Your task to perform on an android device: turn on the 24-hour format for clock Image 0: 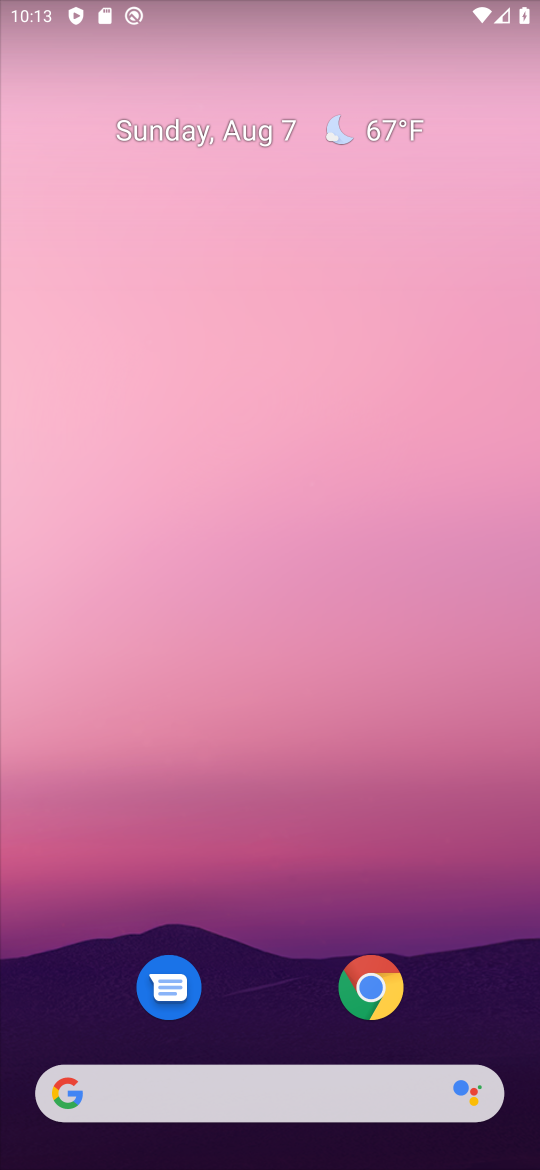
Step 0: drag from (342, 895) to (345, 64)
Your task to perform on an android device: turn on the 24-hour format for clock Image 1: 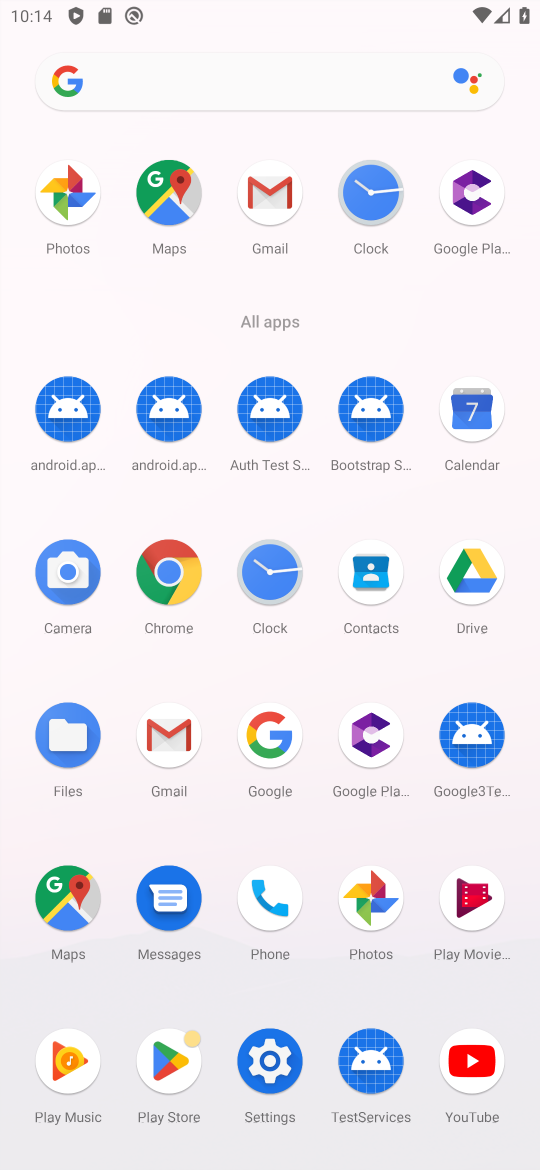
Step 1: click (395, 180)
Your task to perform on an android device: turn on the 24-hour format for clock Image 2: 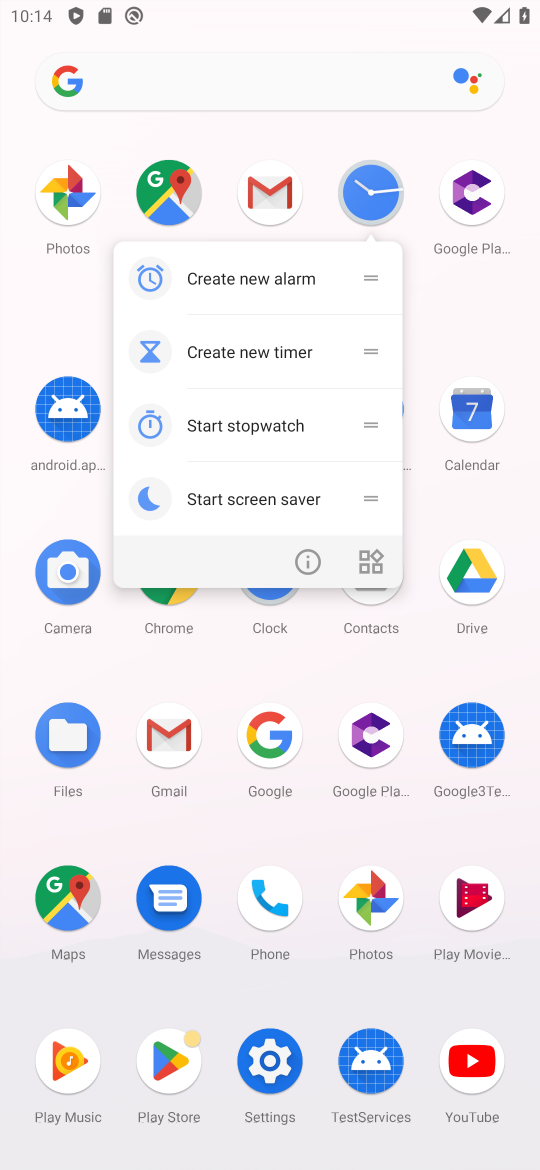
Step 2: click (377, 198)
Your task to perform on an android device: turn on the 24-hour format for clock Image 3: 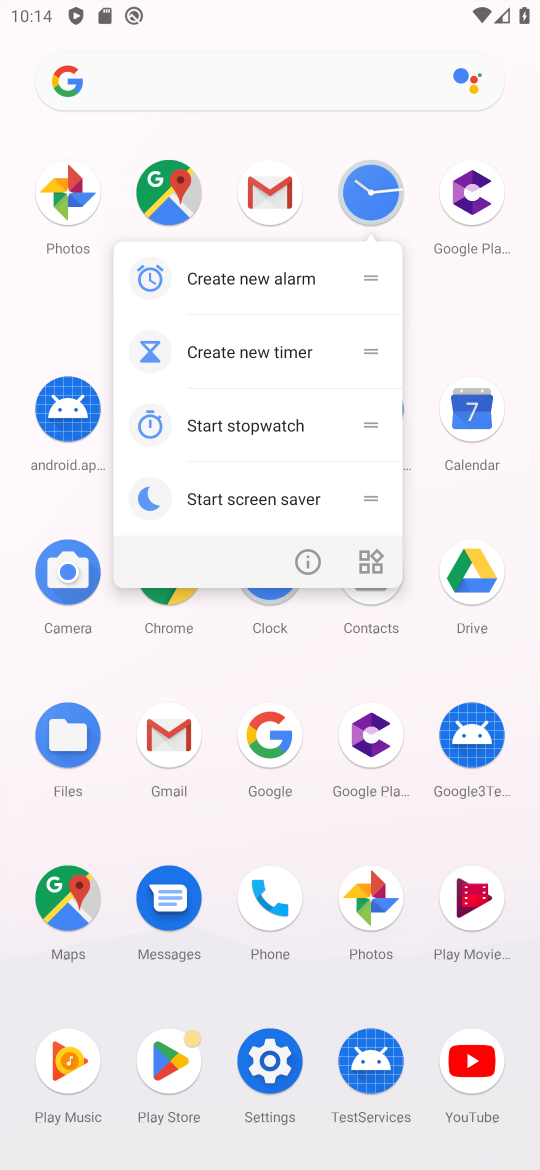
Step 3: click (377, 196)
Your task to perform on an android device: turn on the 24-hour format for clock Image 4: 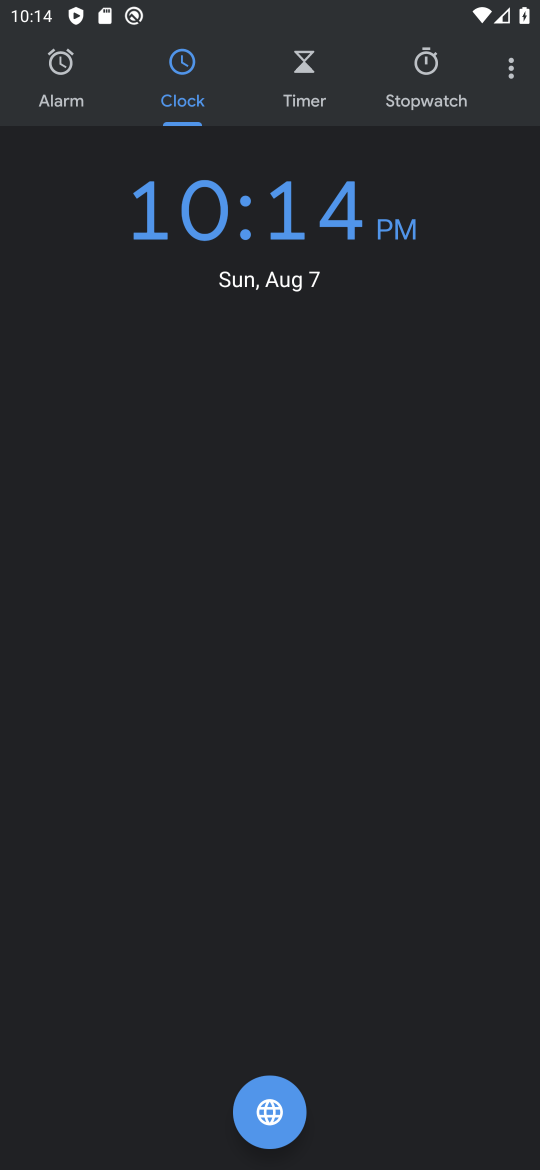
Step 4: click (503, 82)
Your task to perform on an android device: turn on the 24-hour format for clock Image 5: 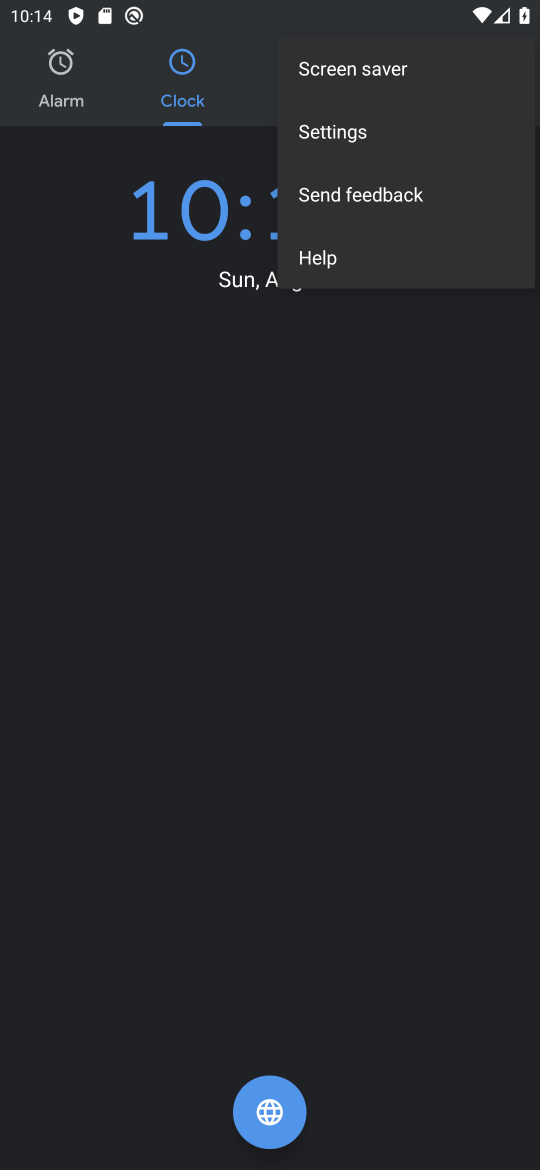
Step 5: click (360, 139)
Your task to perform on an android device: turn on the 24-hour format for clock Image 6: 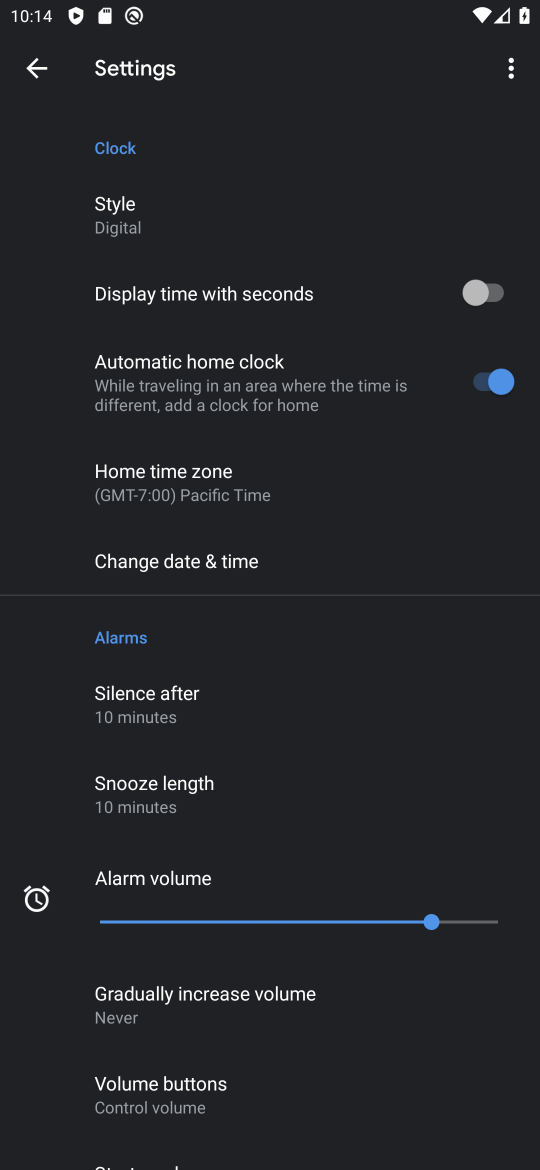
Step 6: drag from (220, 999) to (249, 305)
Your task to perform on an android device: turn on the 24-hour format for clock Image 7: 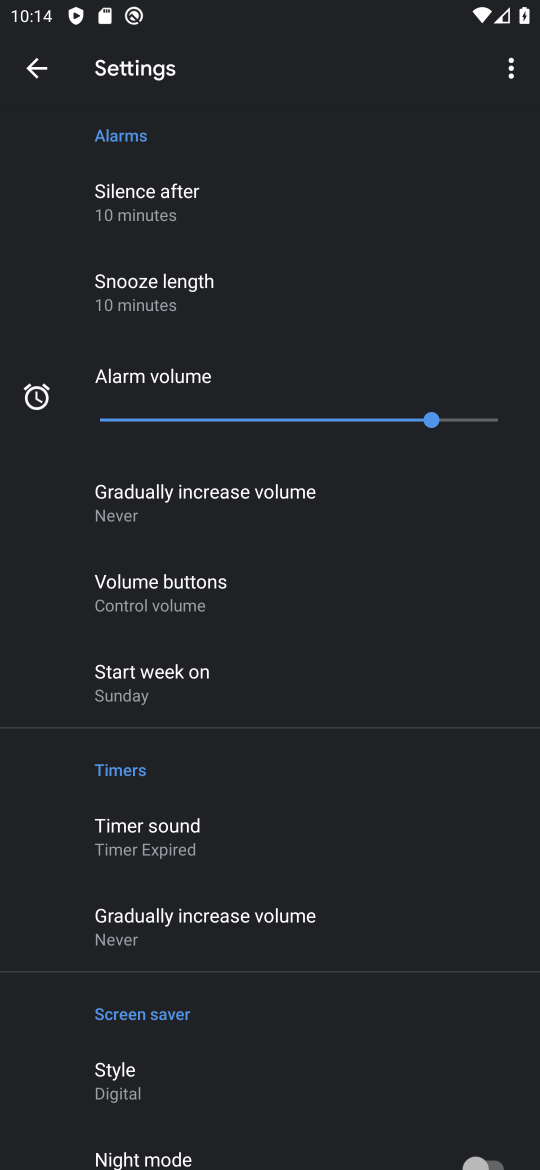
Step 7: drag from (181, 378) to (242, 935)
Your task to perform on an android device: turn on the 24-hour format for clock Image 8: 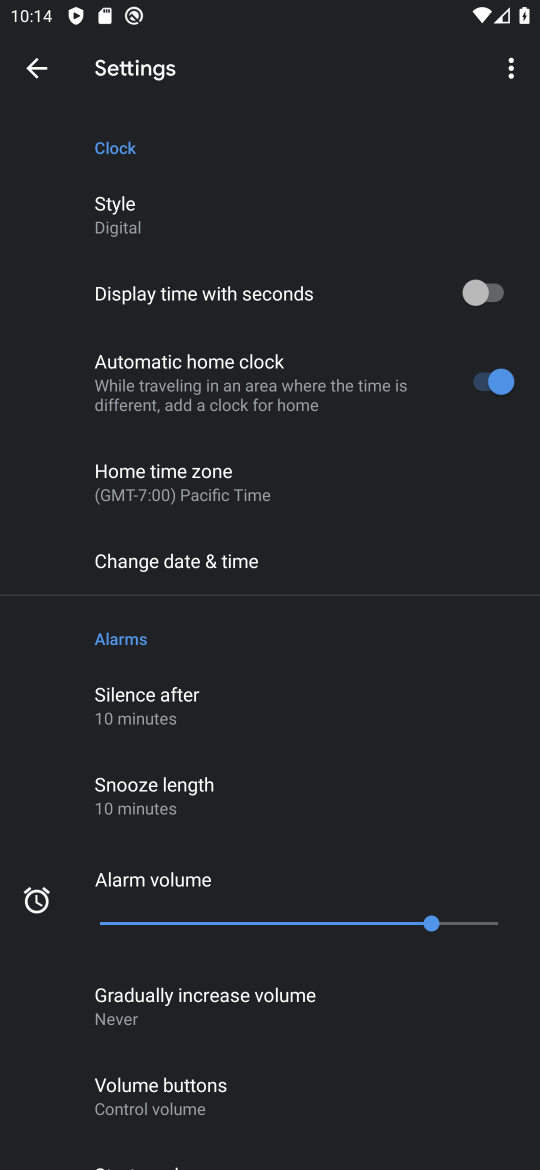
Step 8: click (165, 570)
Your task to perform on an android device: turn on the 24-hour format for clock Image 9: 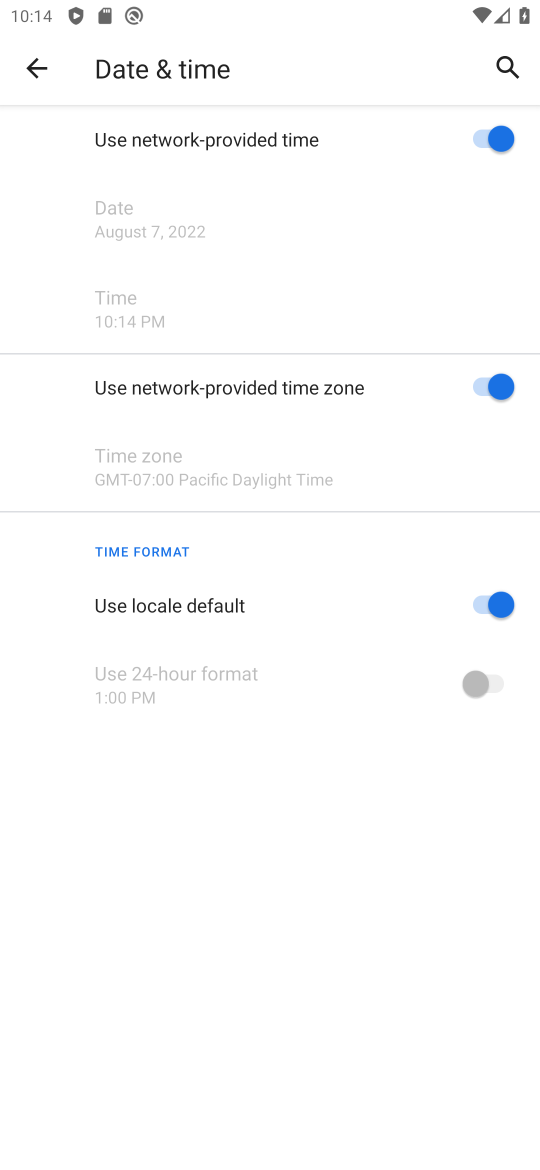
Step 9: click (491, 603)
Your task to perform on an android device: turn on the 24-hour format for clock Image 10: 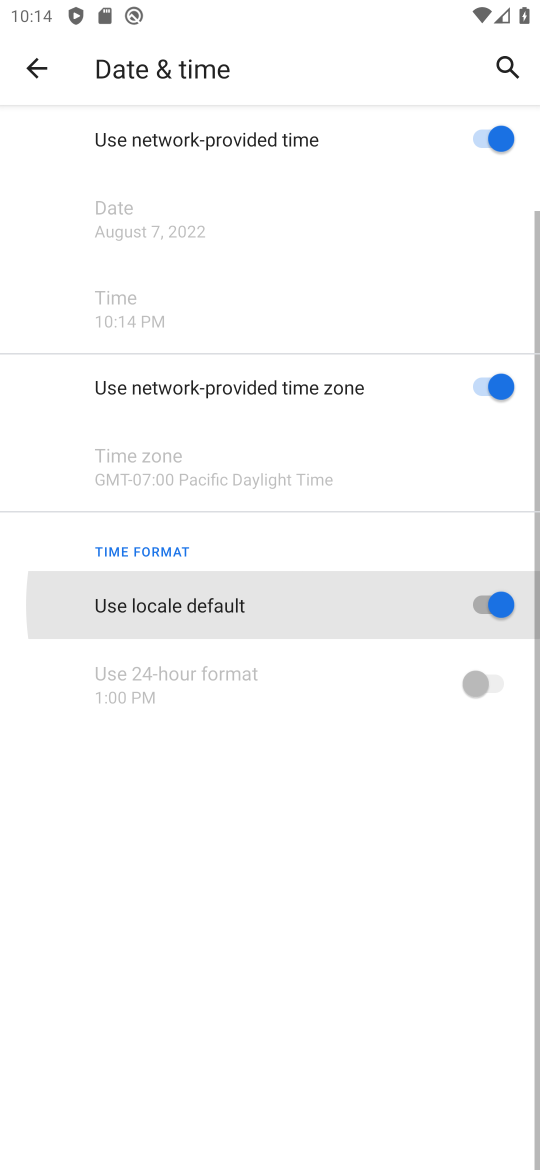
Step 10: click (486, 683)
Your task to perform on an android device: turn on the 24-hour format for clock Image 11: 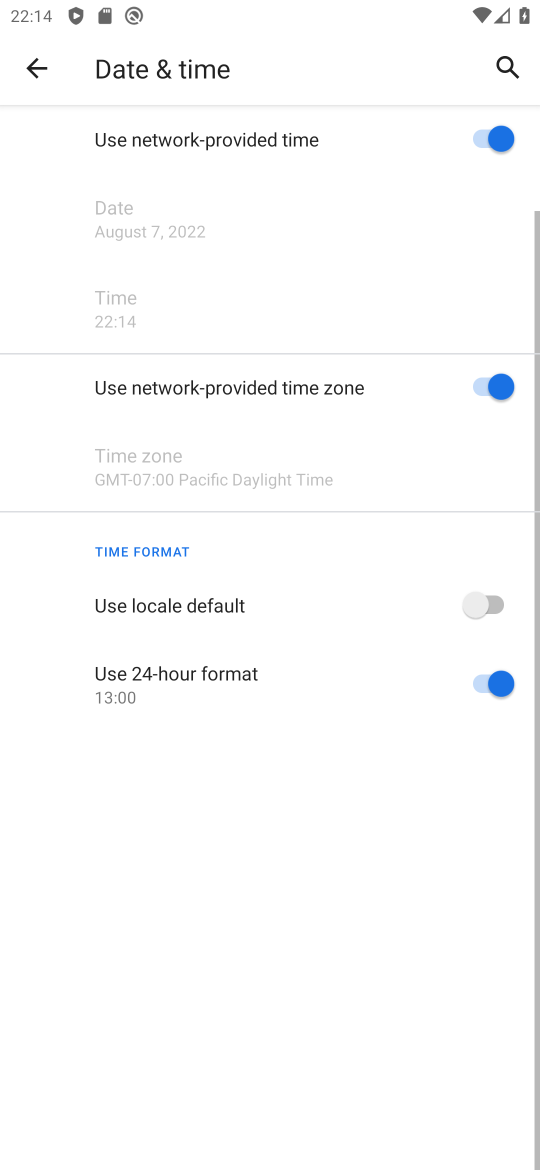
Step 11: task complete